Your task to perform on an android device: Open CNN.com Image 0: 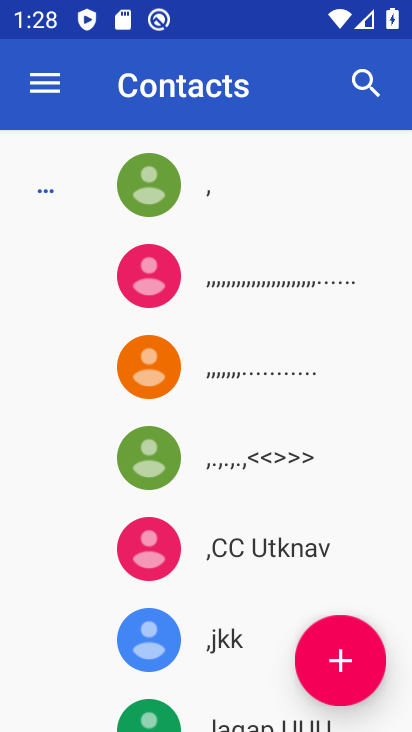
Step 0: press home button
Your task to perform on an android device: Open CNN.com Image 1: 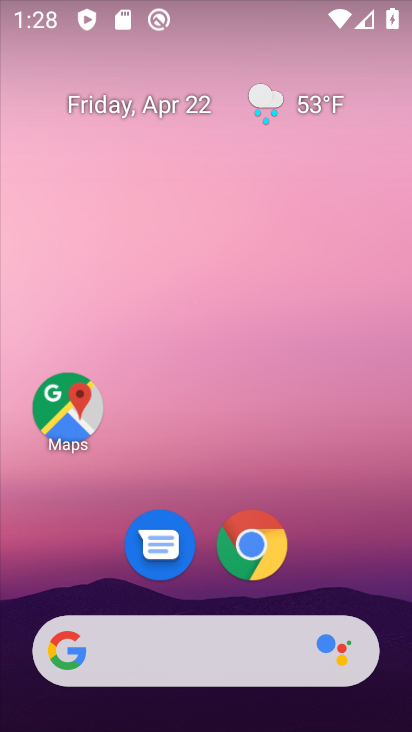
Step 1: click (254, 540)
Your task to perform on an android device: Open CNN.com Image 2: 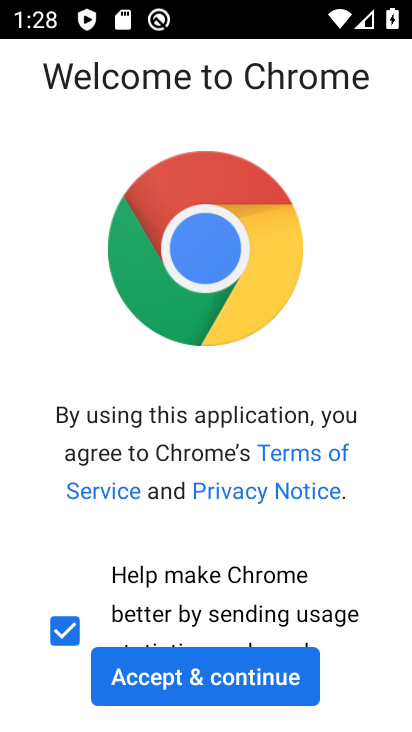
Step 2: click (219, 681)
Your task to perform on an android device: Open CNN.com Image 3: 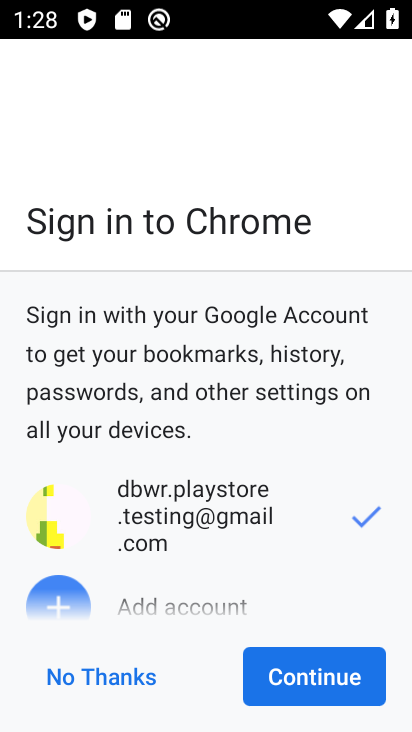
Step 3: click (314, 678)
Your task to perform on an android device: Open CNN.com Image 4: 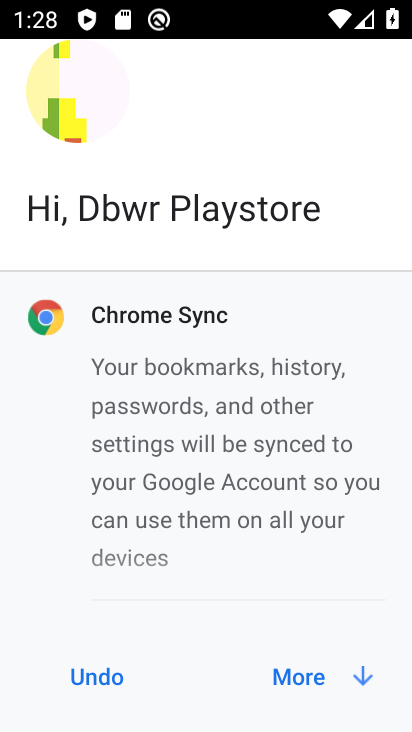
Step 4: click (301, 675)
Your task to perform on an android device: Open CNN.com Image 5: 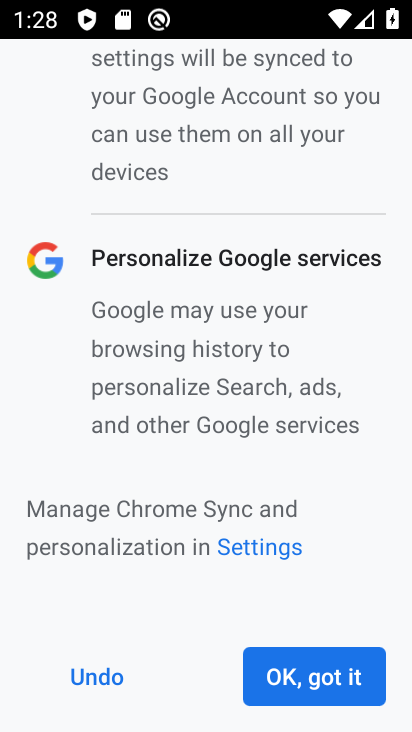
Step 5: click (301, 675)
Your task to perform on an android device: Open CNN.com Image 6: 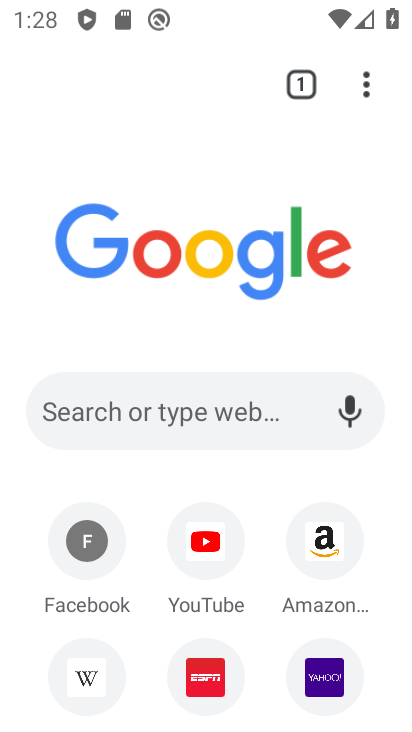
Step 6: click (256, 405)
Your task to perform on an android device: Open CNN.com Image 7: 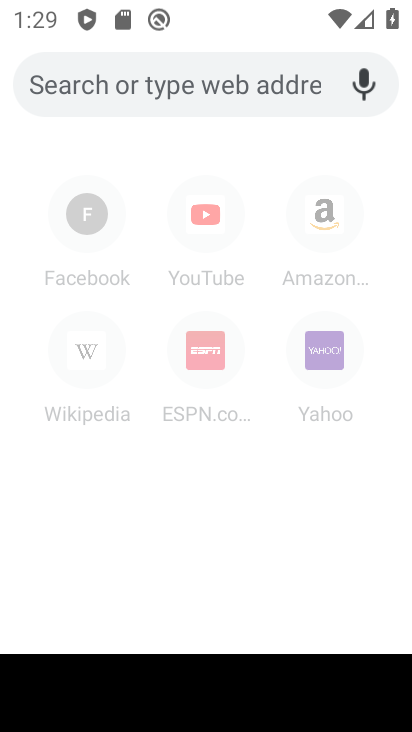
Step 7: type "CNN.com"
Your task to perform on an android device: Open CNN.com Image 8: 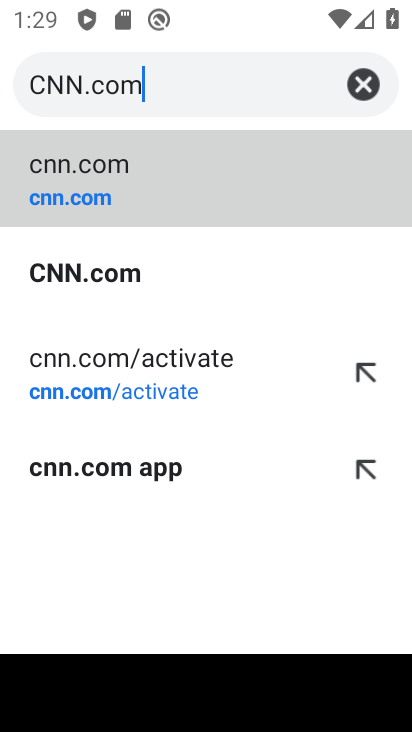
Step 8: click (119, 272)
Your task to perform on an android device: Open CNN.com Image 9: 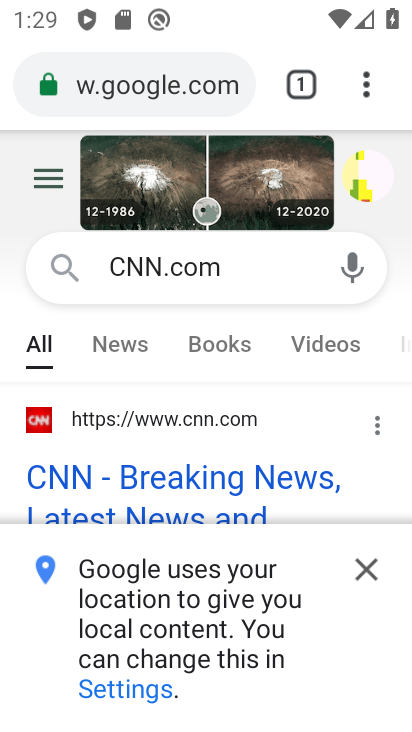
Step 9: click (368, 568)
Your task to perform on an android device: Open CNN.com Image 10: 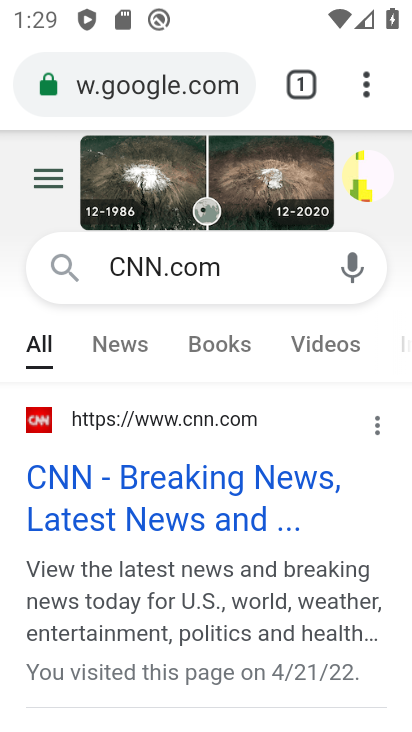
Step 10: task complete